Your task to perform on an android device: turn off smart reply in the gmail app Image 0: 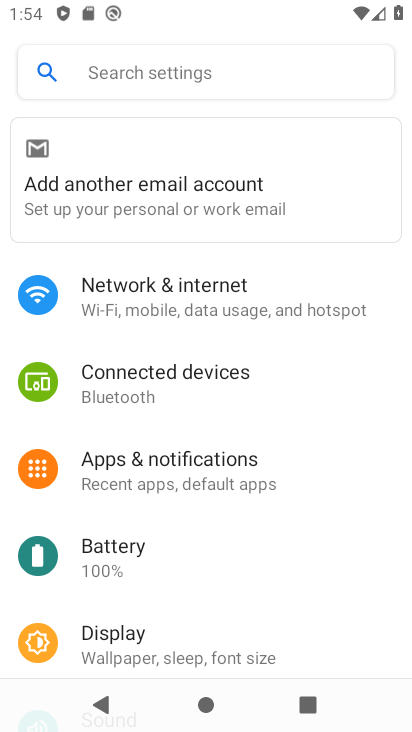
Step 0: press home button
Your task to perform on an android device: turn off smart reply in the gmail app Image 1: 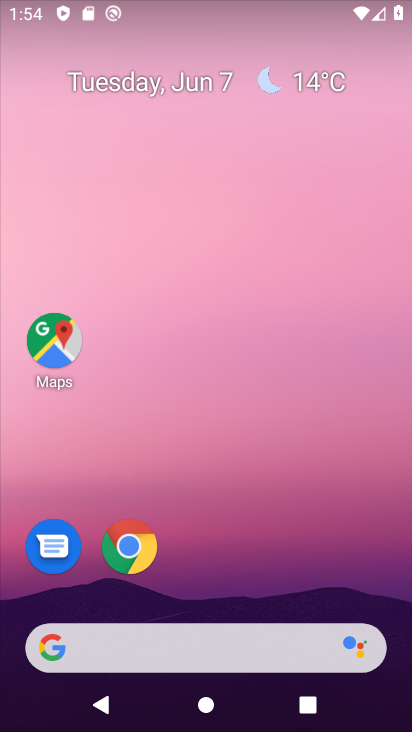
Step 1: drag from (182, 609) to (216, 161)
Your task to perform on an android device: turn off smart reply in the gmail app Image 2: 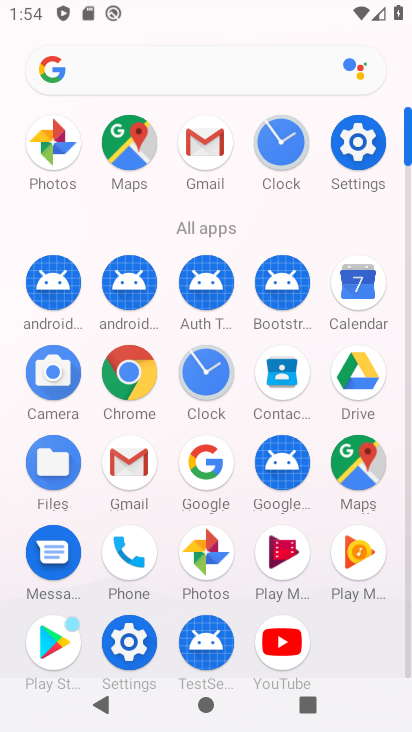
Step 2: click (205, 137)
Your task to perform on an android device: turn off smart reply in the gmail app Image 3: 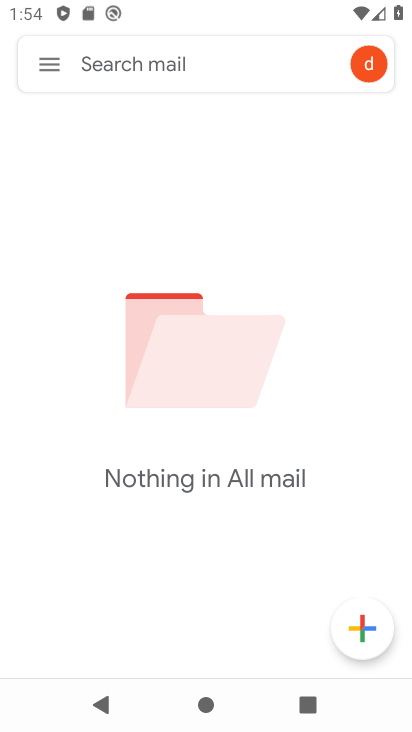
Step 3: click (46, 59)
Your task to perform on an android device: turn off smart reply in the gmail app Image 4: 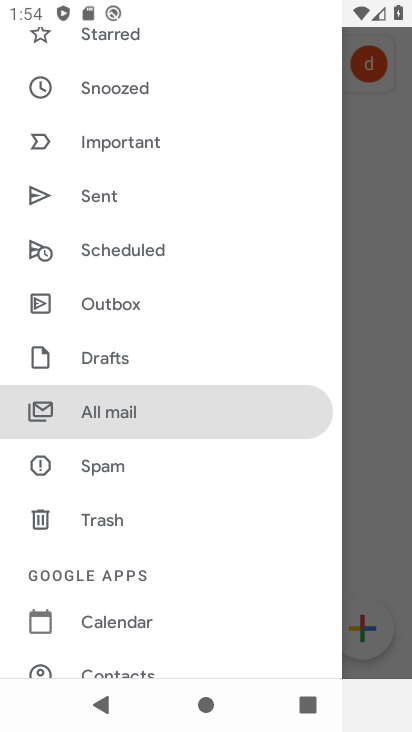
Step 4: drag from (146, 652) to (183, 216)
Your task to perform on an android device: turn off smart reply in the gmail app Image 5: 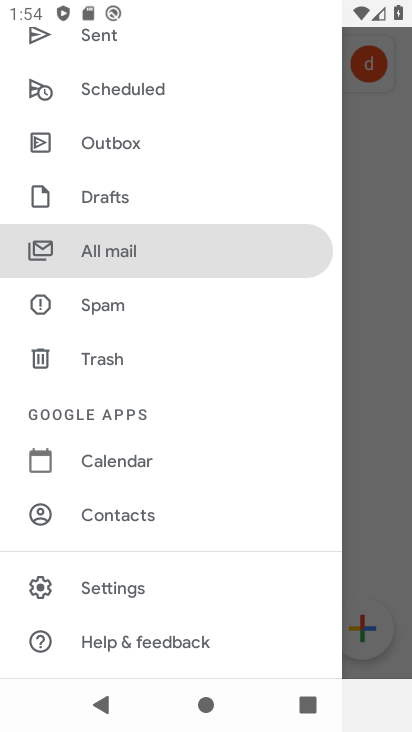
Step 5: click (113, 572)
Your task to perform on an android device: turn off smart reply in the gmail app Image 6: 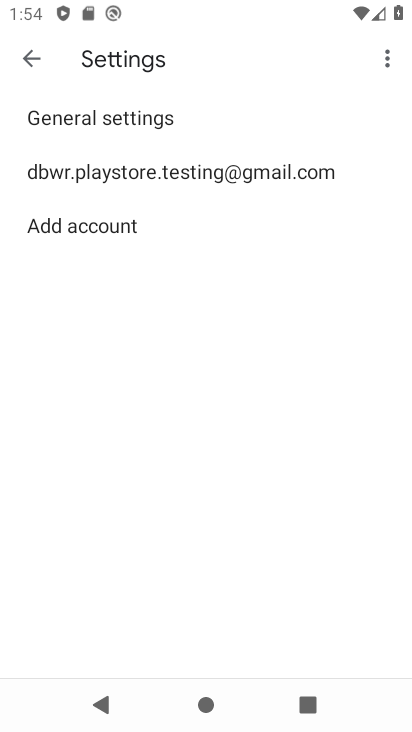
Step 6: click (197, 179)
Your task to perform on an android device: turn off smart reply in the gmail app Image 7: 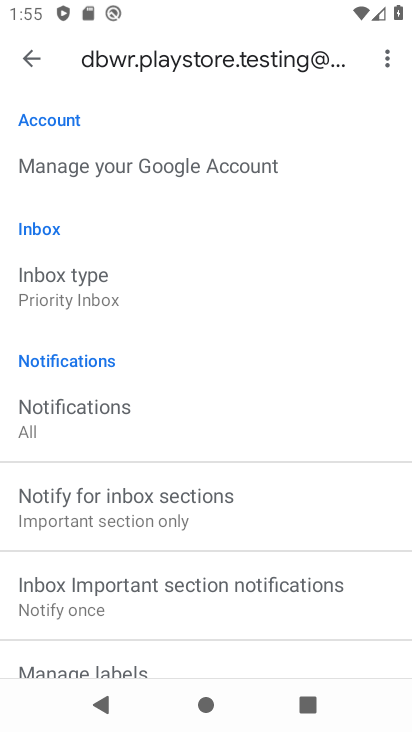
Step 7: drag from (178, 638) to (215, 257)
Your task to perform on an android device: turn off smart reply in the gmail app Image 8: 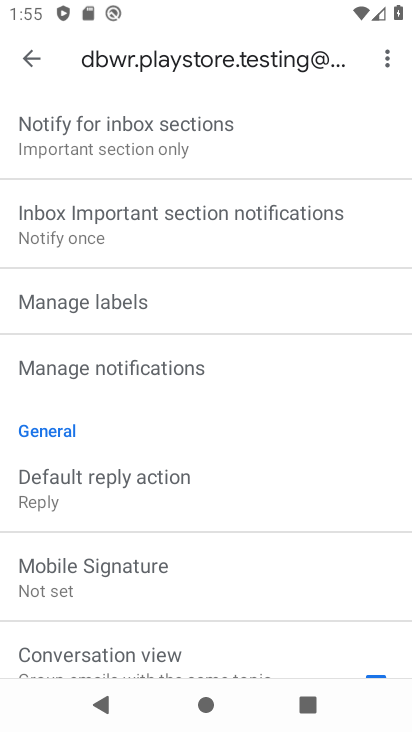
Step 8: drag from (129, 606) to (192, 231)
Your task to perform on an android device: turn off smart reply in the gmail app Image 9: 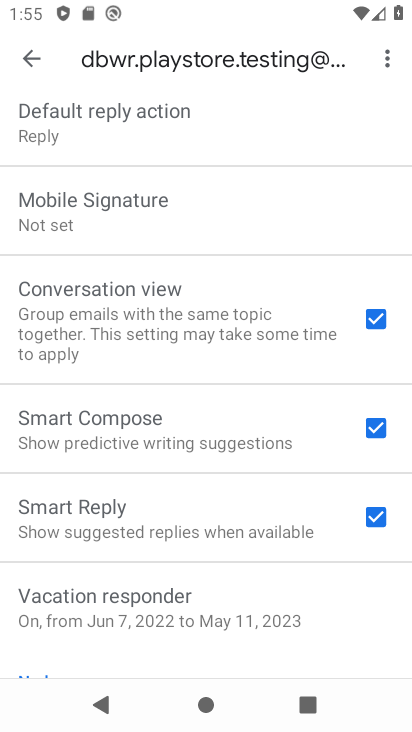
Step 9: drag from (92, 677) to (147, 344)
Your task to perform on an android device: turn off smart reply in the gmail app Image 10: 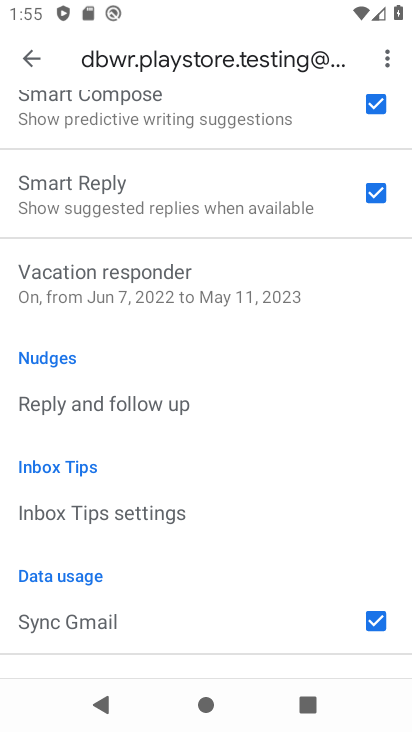
Step 10: click (372, 187)
Your task to perform on an android device: turn off smart reply in the gmail app Image 11: 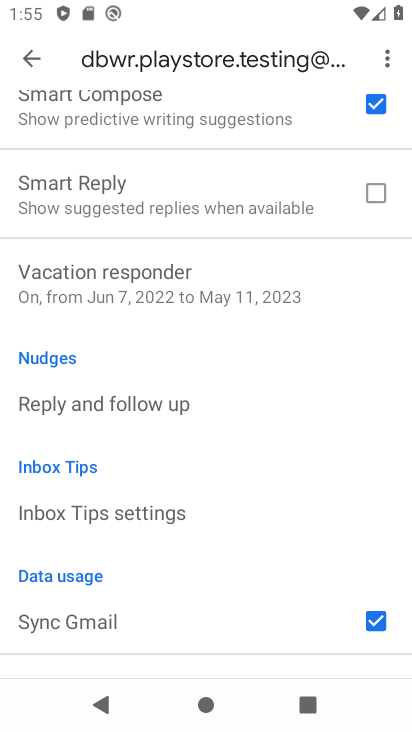
Step 11: task complete